Your task to perform on an android device: Open calendar and show me the fourth week of next month Image 0: 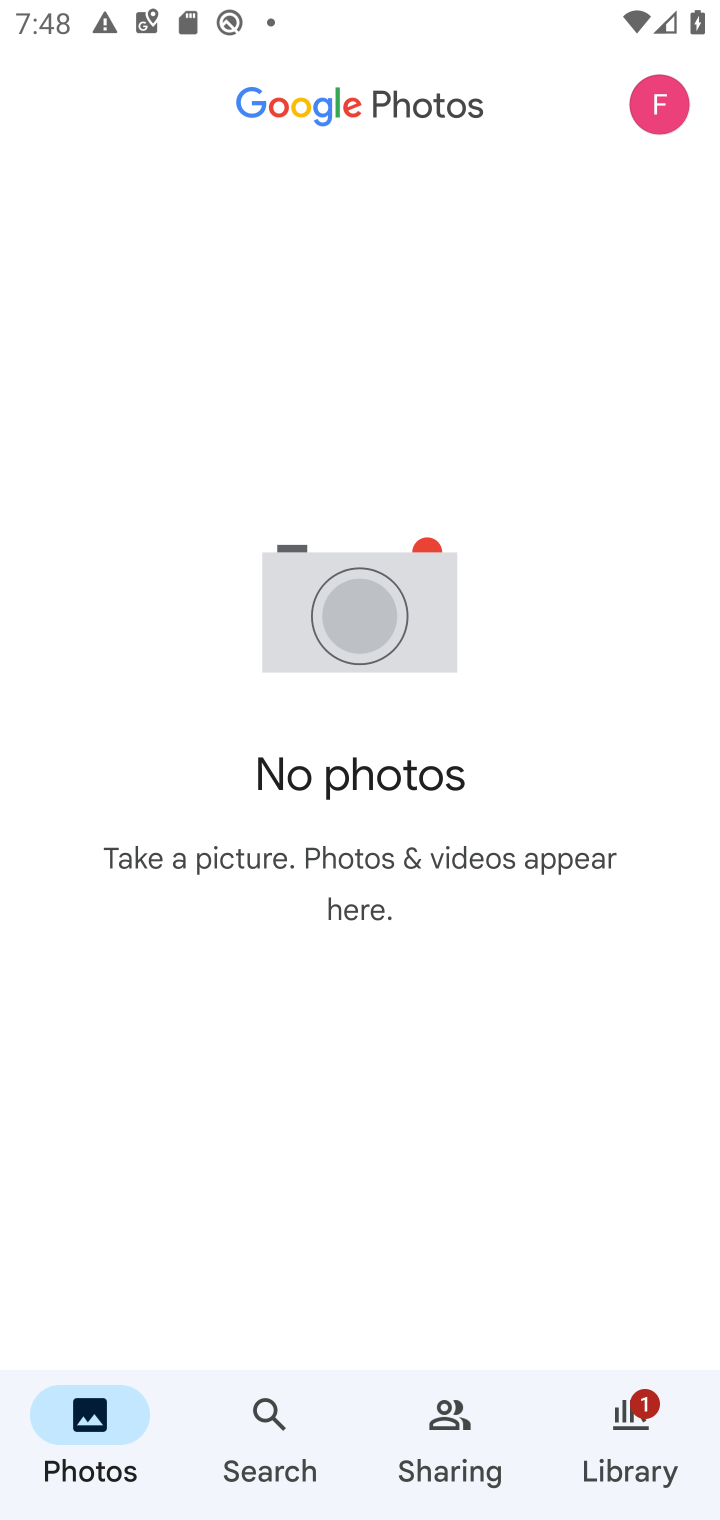
Step 0: press home button
Your task to perform on an android device: Open calendar and show me the fourth week of next month Image 1: 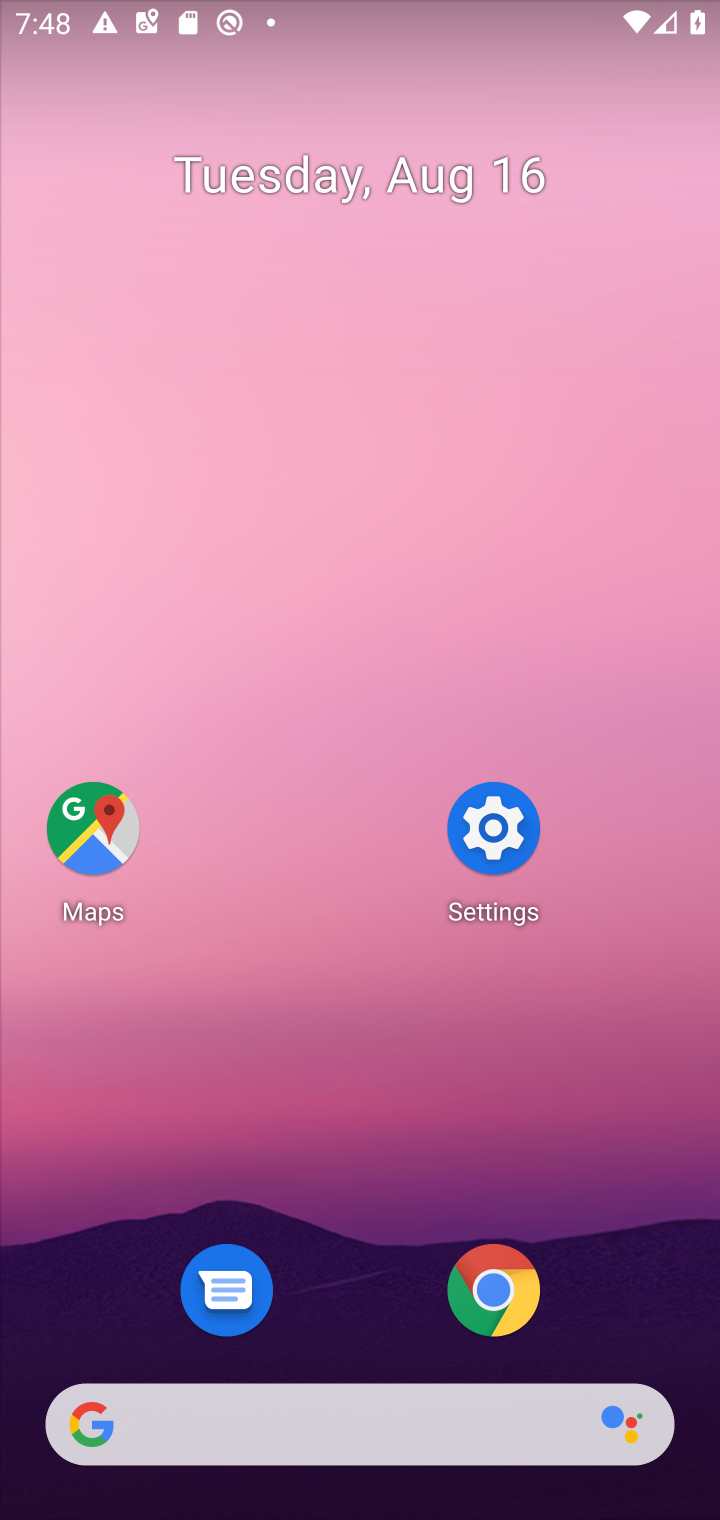
Step 1: drag from (360, 1336) to (677, 216)
Your task to perform on an android device: Open calendar and show me the fourth week of next month Image 2: 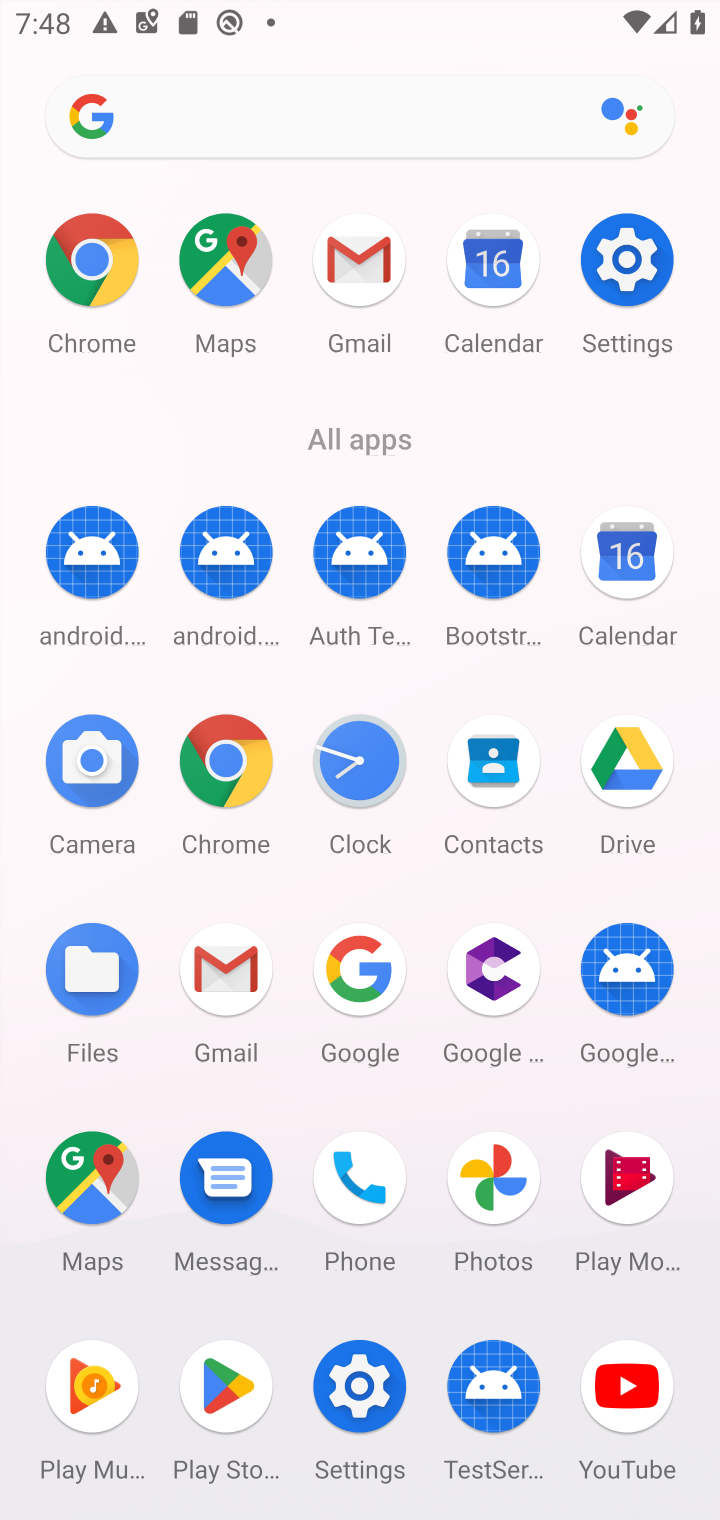
Step 2: click (507, 255)
Your task to perform on an android device: Open calendar and show me the fourth week of next month Image 3: 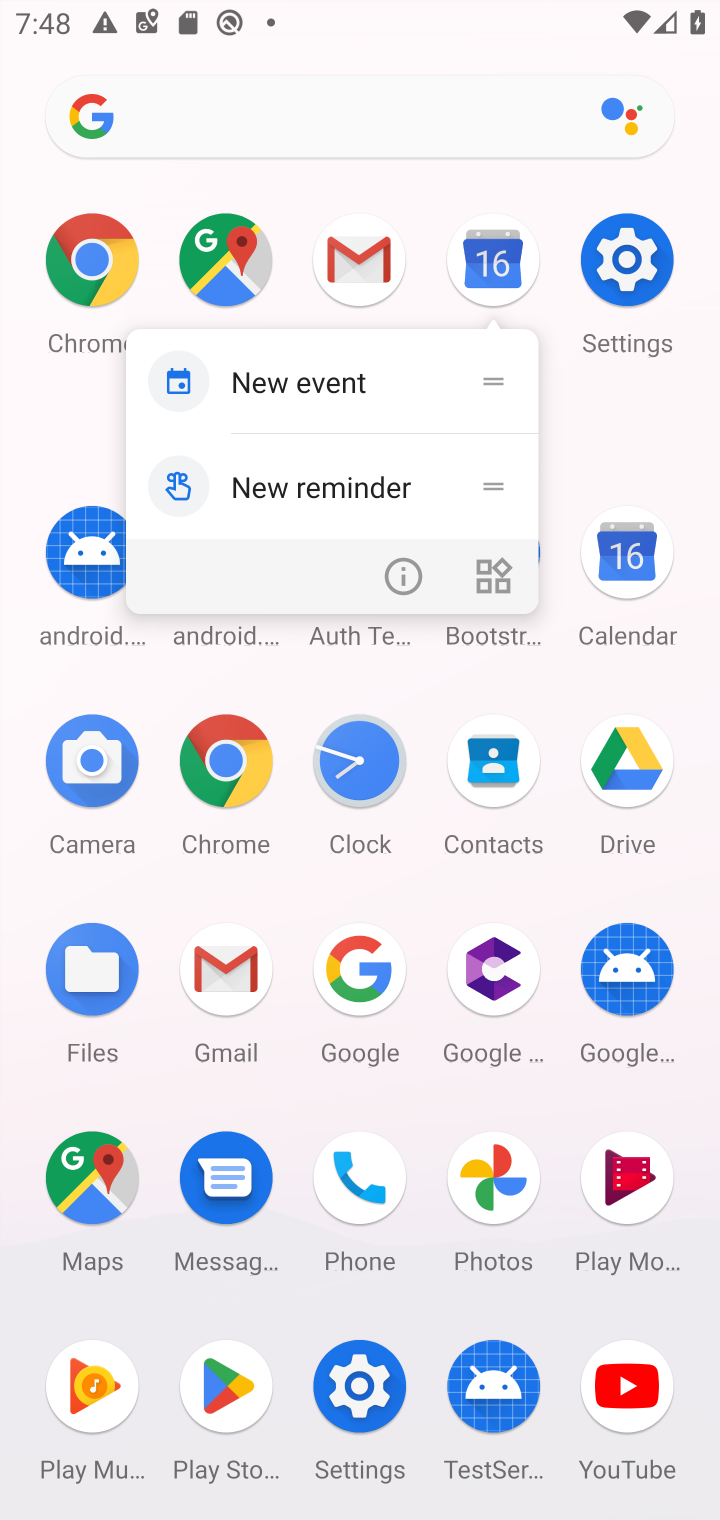
Step 3: click (494, 268)
Your task to perform on an android device: Open calendar and show me the fourth week of next month Image 4: 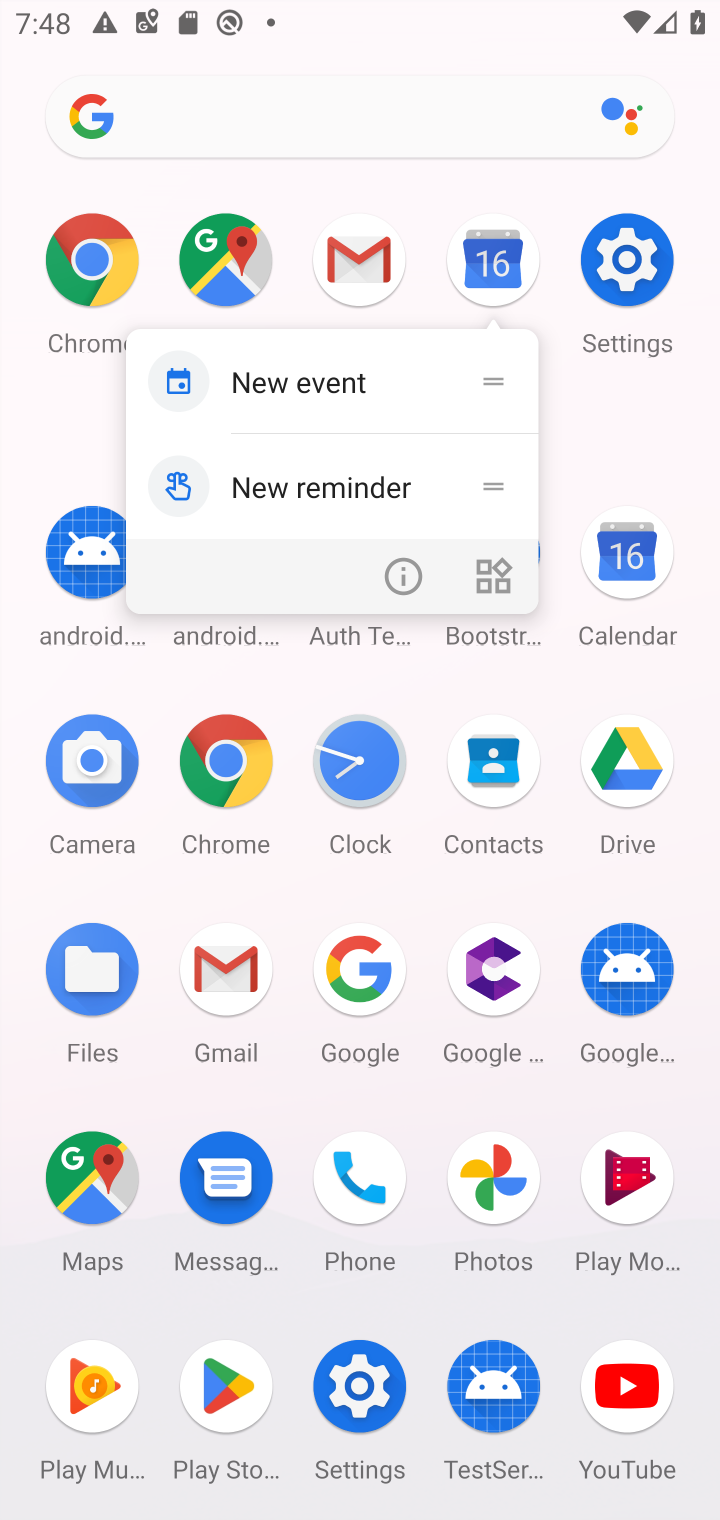
Step 4: click (510, 248)
Your task to perform on an android device: Open calendar and show me the fourth week of next month Image 5: 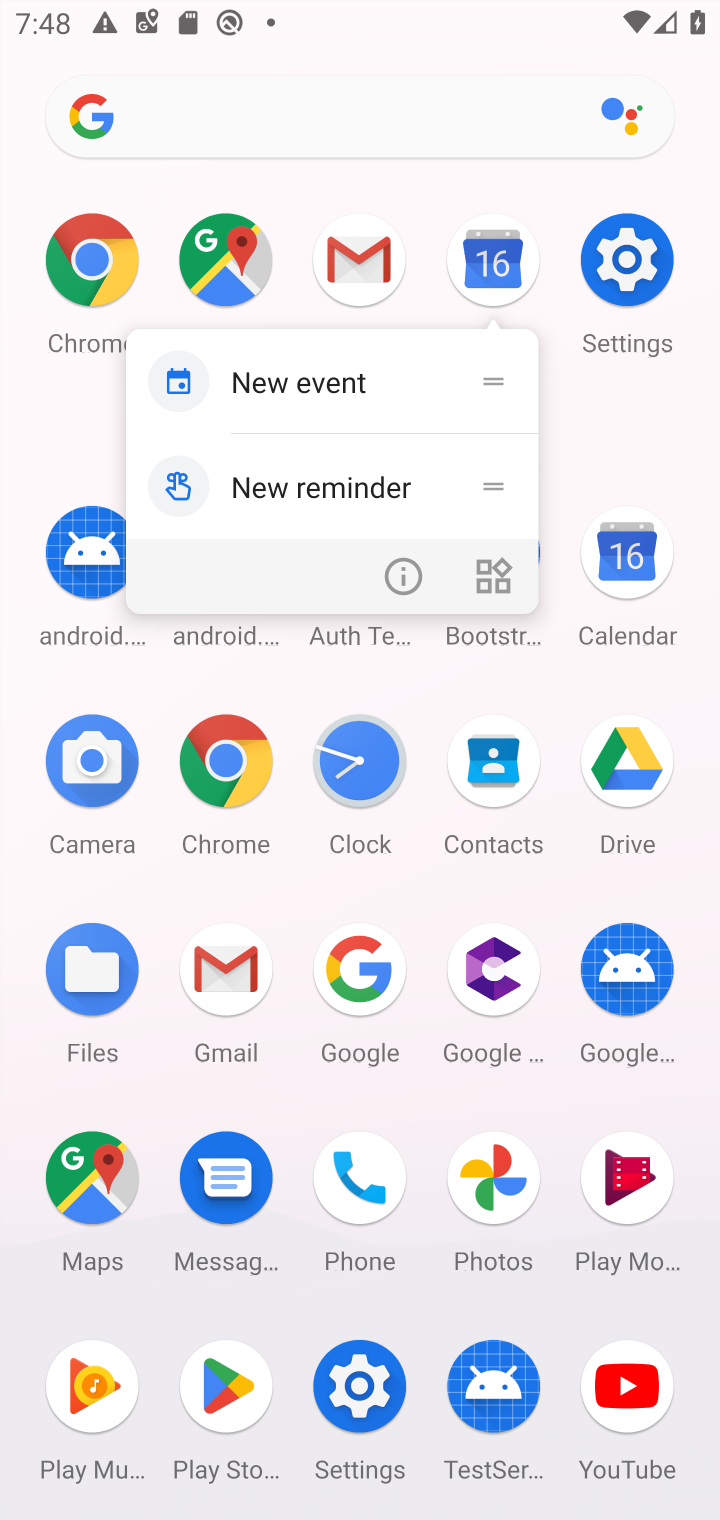
Step 5: click (487, 261)
Your task to perform on an android device: Open calendar and show me the fourth week of next month Image 6: 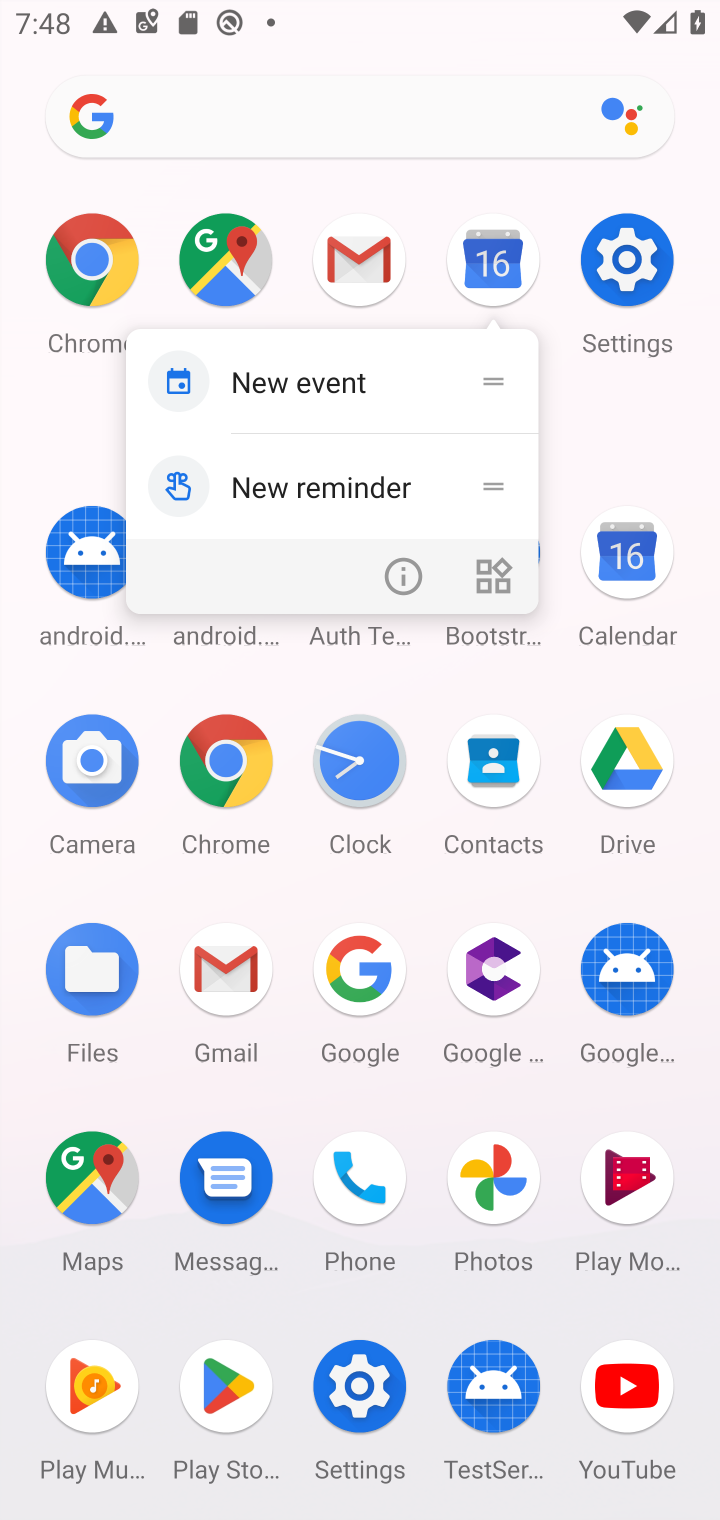
Step 6: click (487, 261)
Your task to perform on an android device: Open calendar and show me the fourth week of next month Image 7: 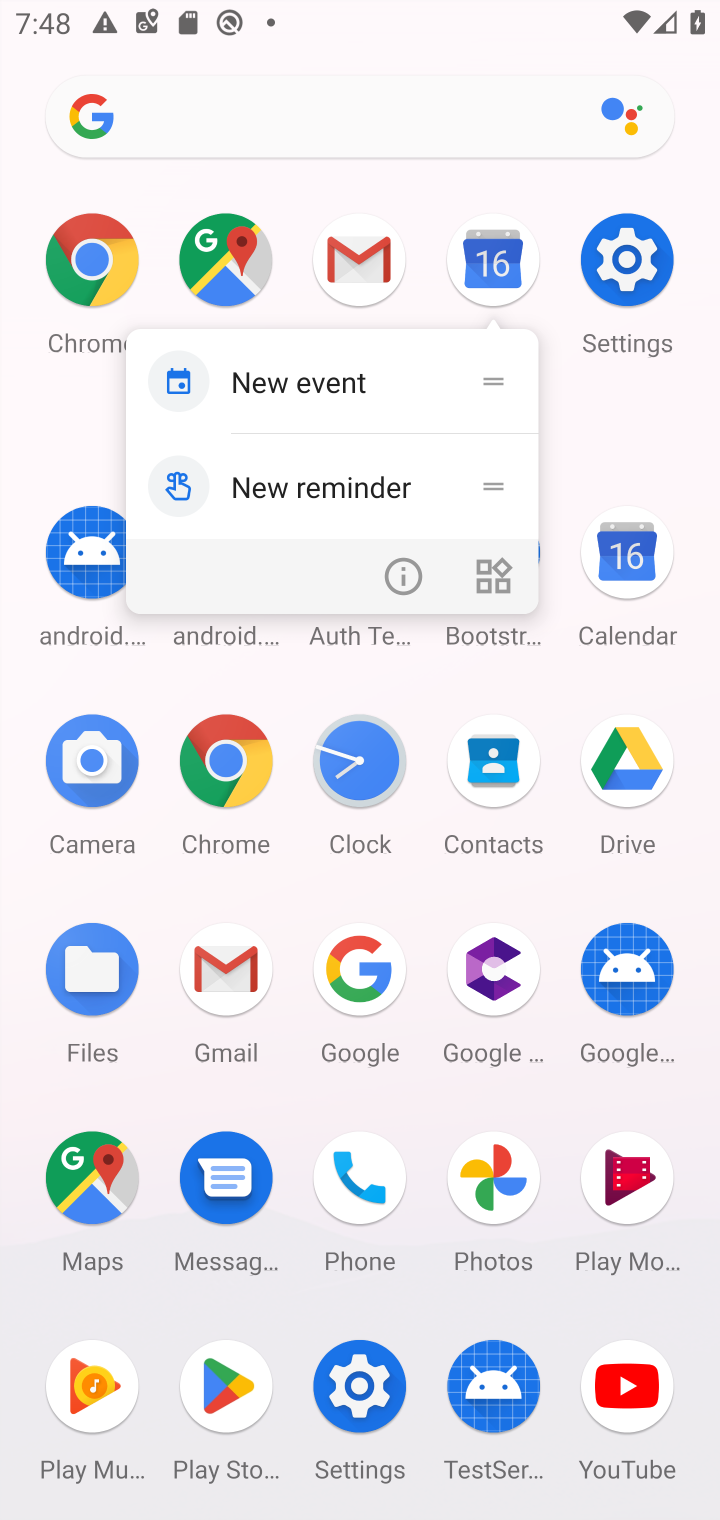
Step 7: click (487, 261)
Your task to perform on an android device: Open calendar and show me the fourth week of next month Image 8: 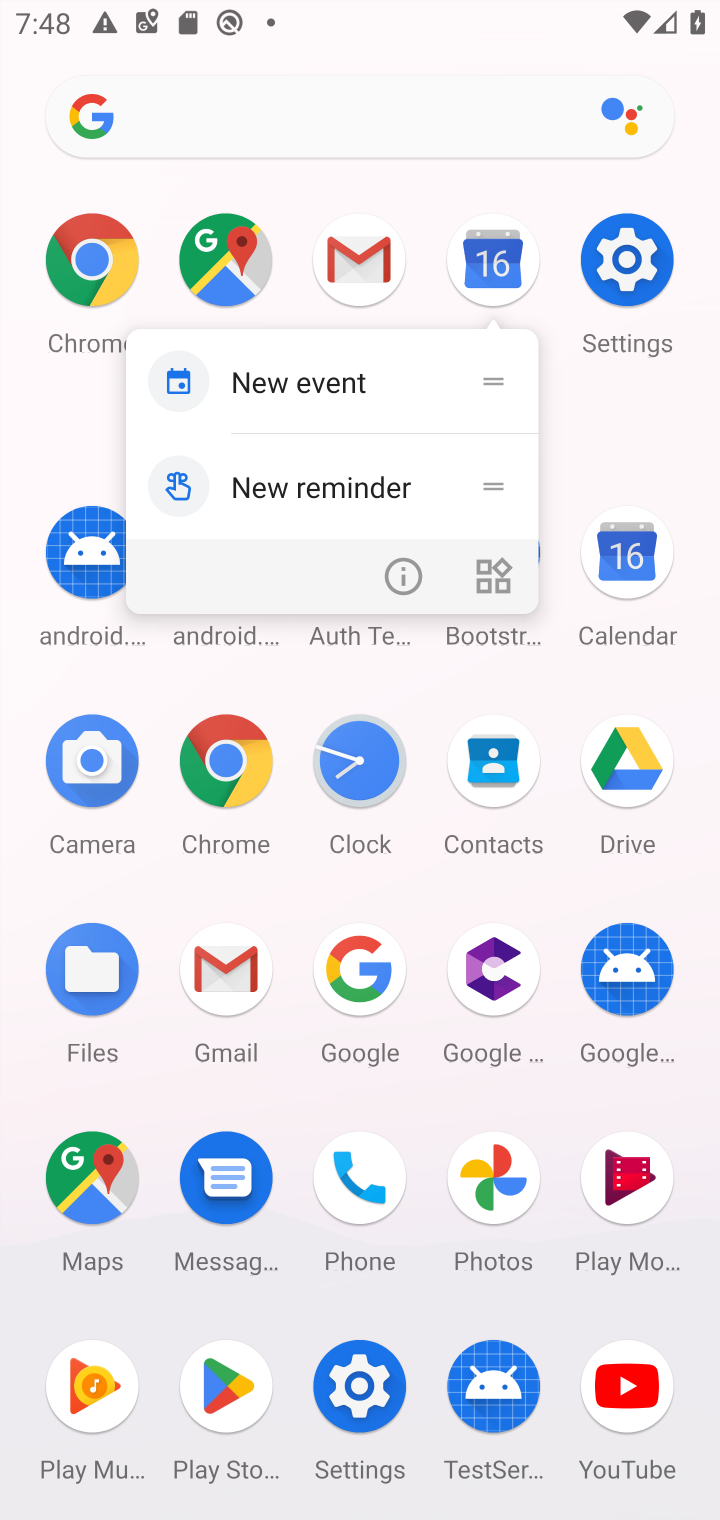
Step 8: click (487, 263)
Your task to perform on an android device: Open calendar and show me the fourth week of next month Image 9: 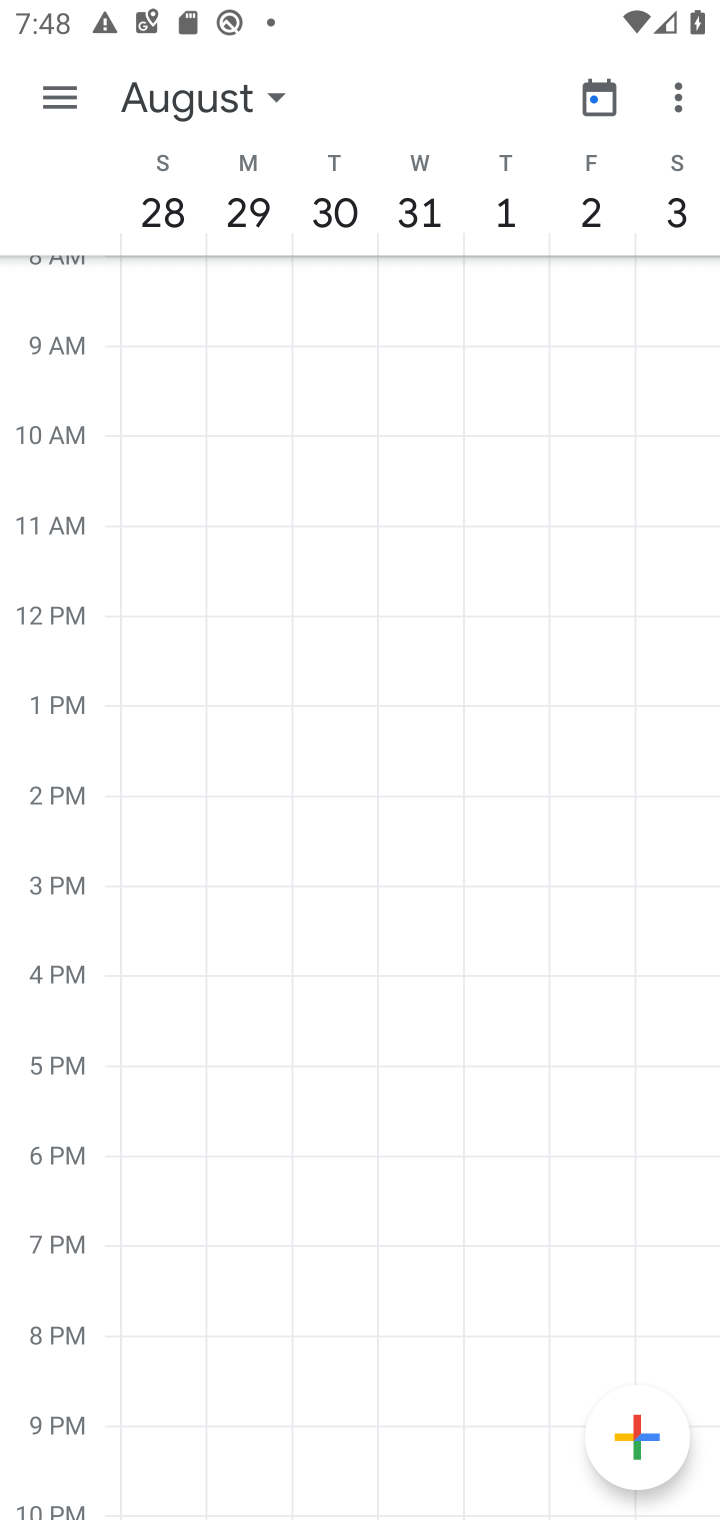
Step 9: drag from (450, 209) to (23, 130)
Your task to perform on an android device: Open calendar and show me the fourth week of next month Image 10: 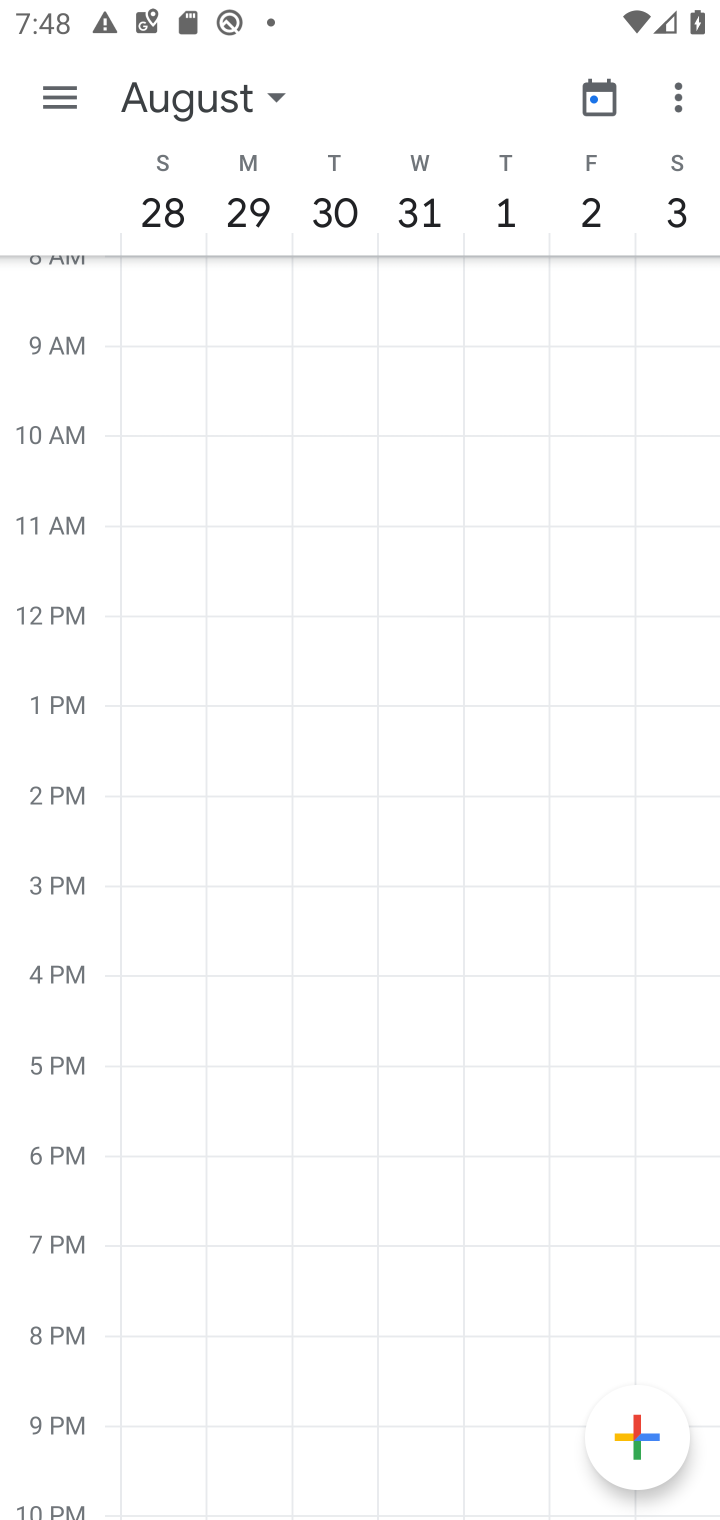
Step 10: click (222, 92)
Your task to perform on an android device: Open calendar and show me the fourth week of next month Image 11: 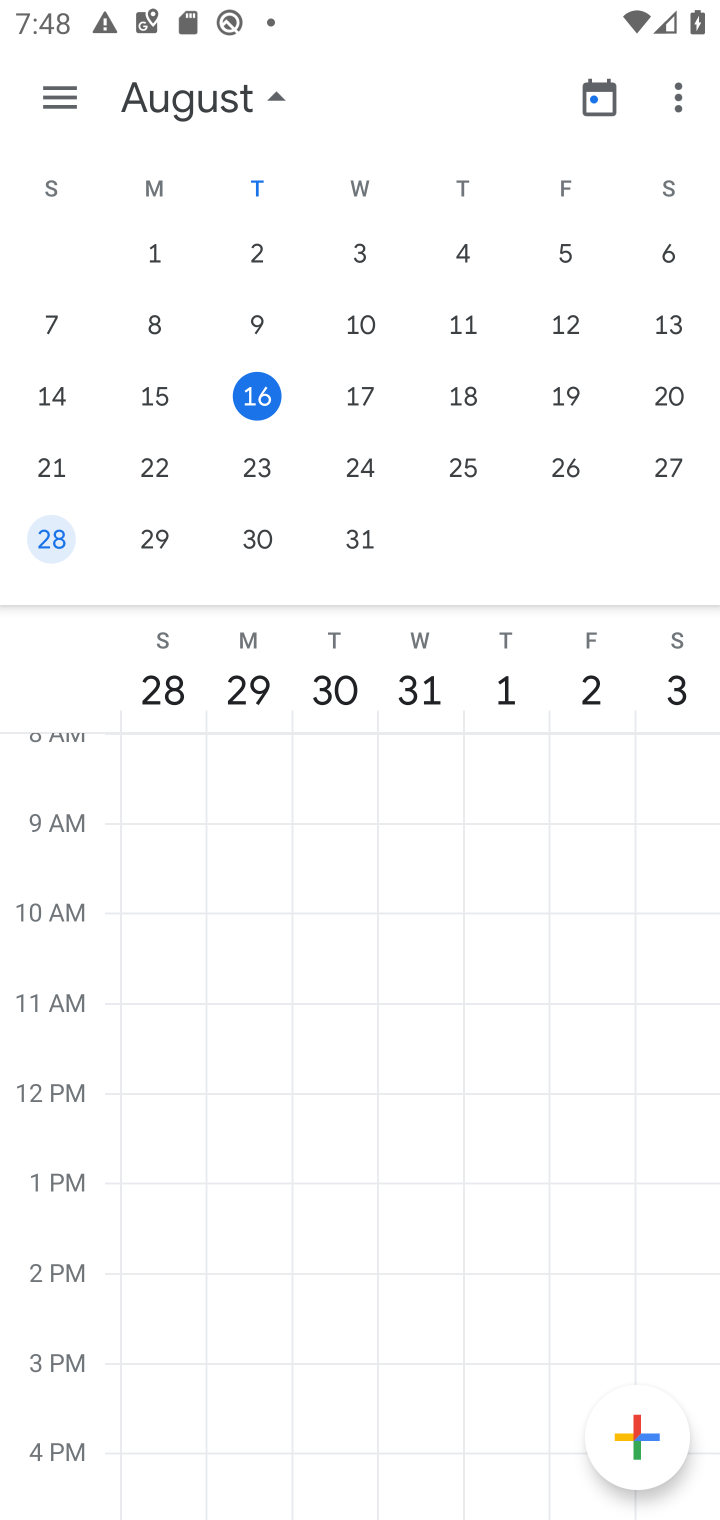
Step 11: drag from (543, 433) to (22, 412)
Your task to perform on an android device: Open calendar and show me the fourth week of next month Image 12: 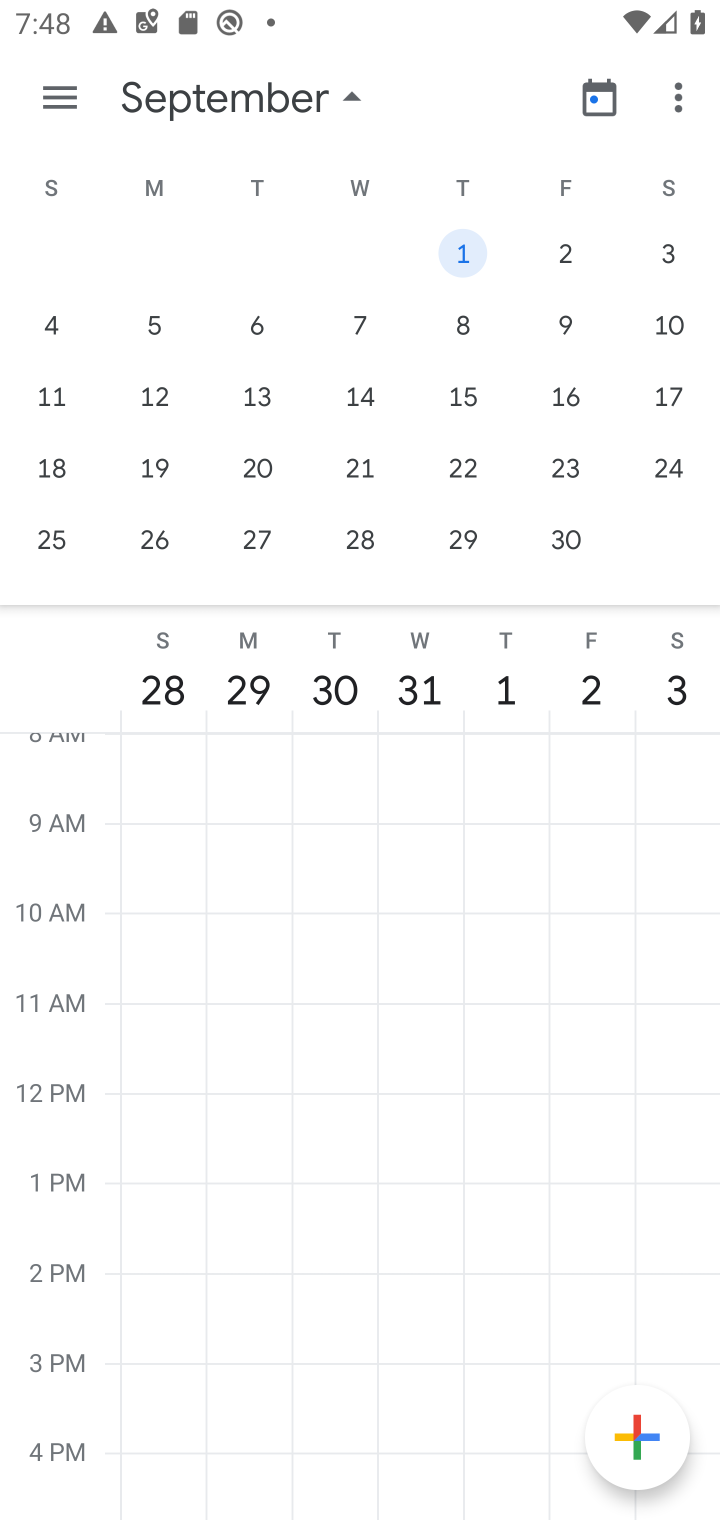
Step 12: click (45, 463)
Your task to perform on an android device: Open calendar and show me the fourth week of next month Image 13: 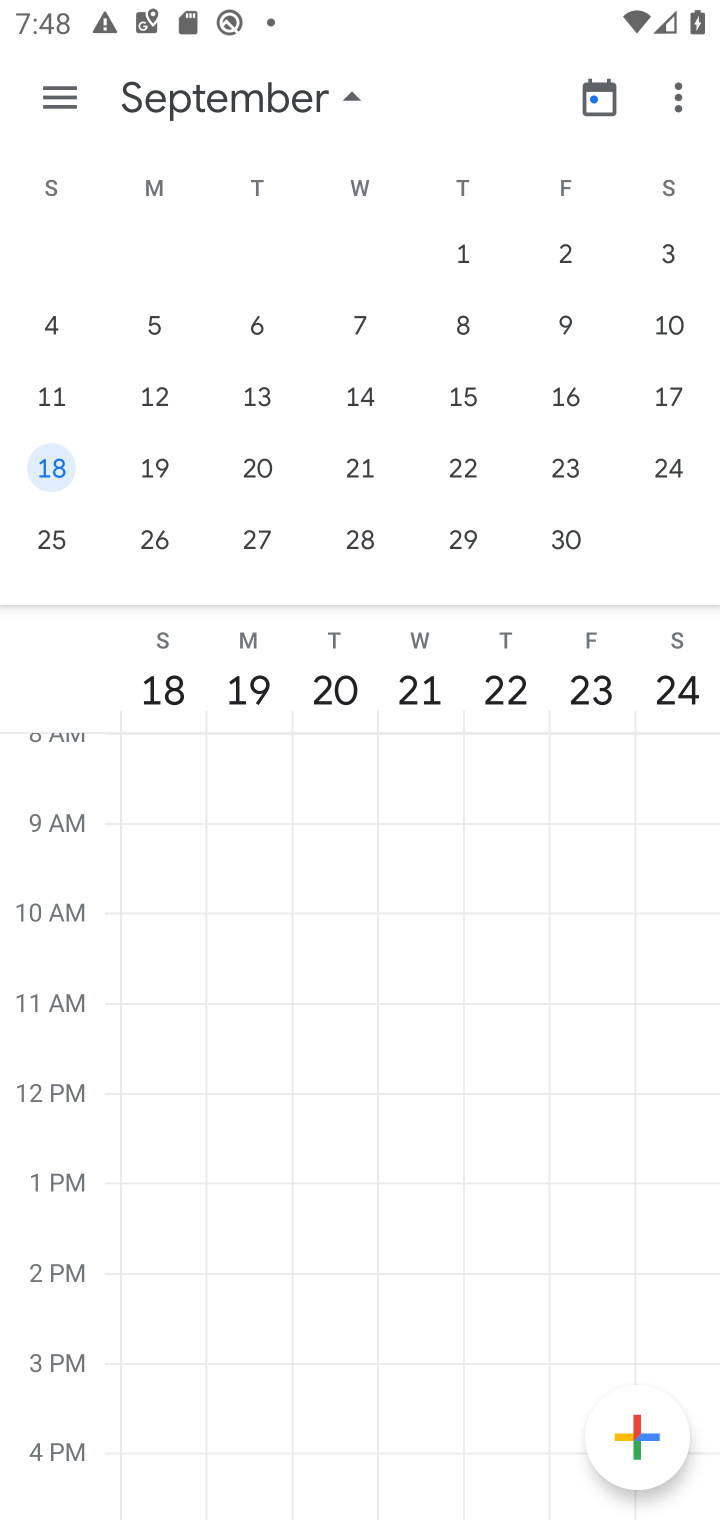
Step 13: click (45, 107)
Your task to perform on an android device: Open calendar and show me the fourth week of next month Image 14: 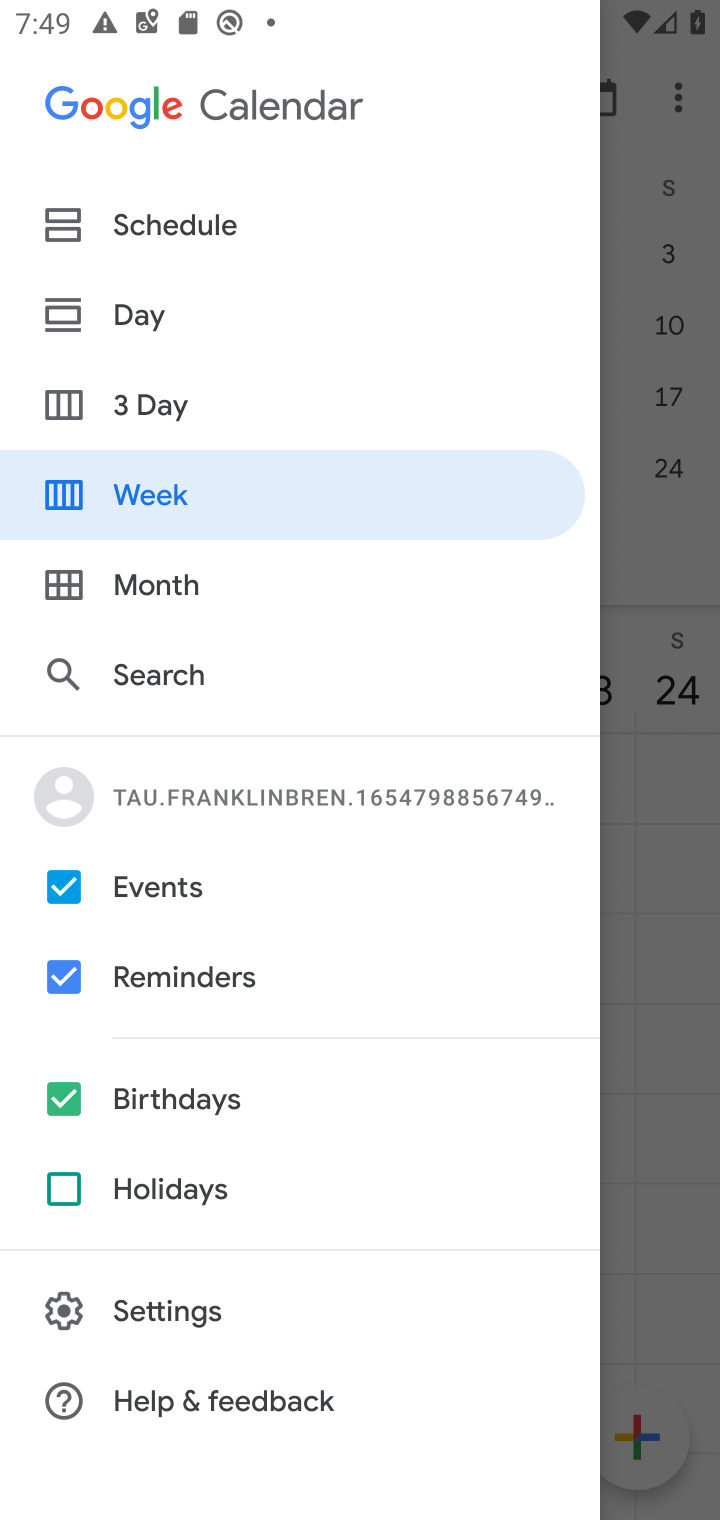
Step 14: click (161, 500)
Your task to perform on an android device: Open calendar and show me the fourth week of next month Image 15: 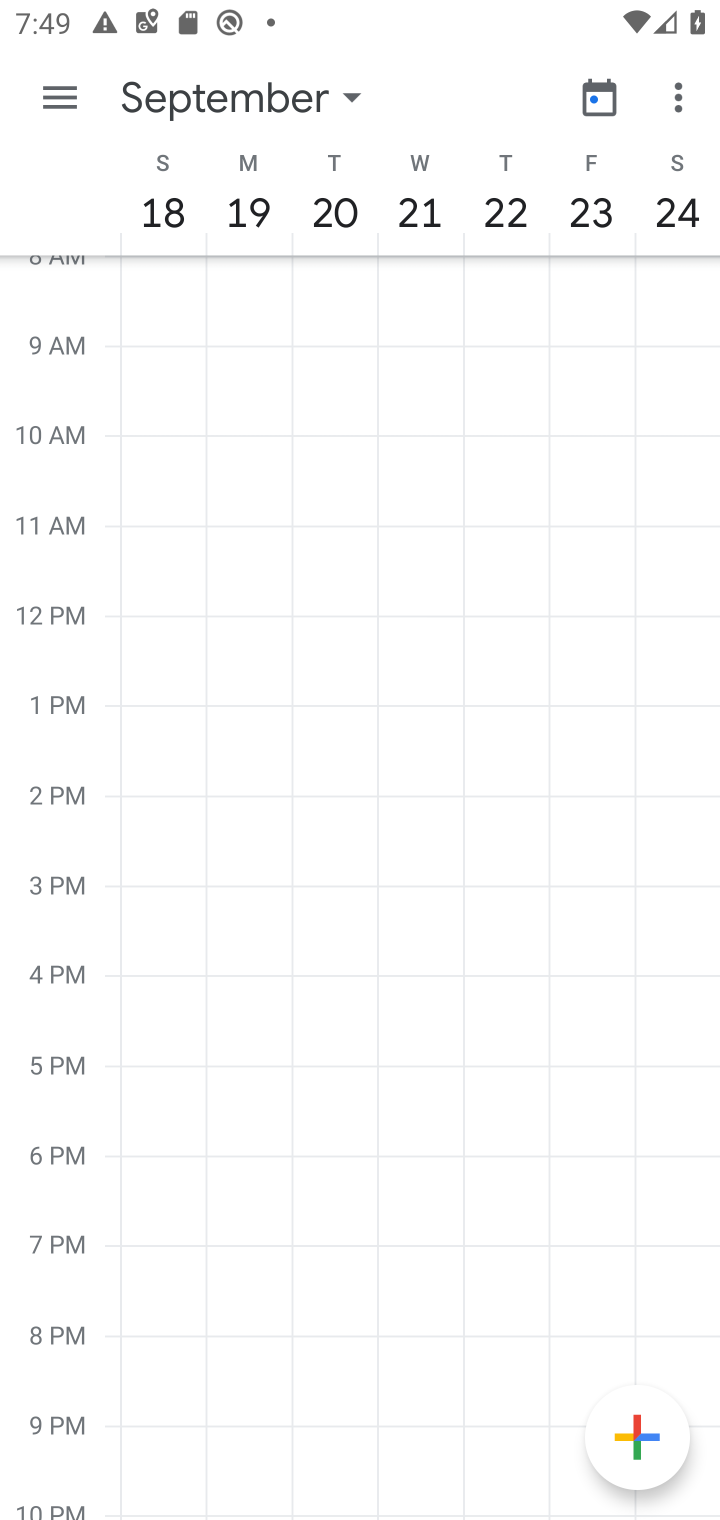
Step 15: task complete